Your task to perform on an android device: refresh tabs in the chrome app Image 0: 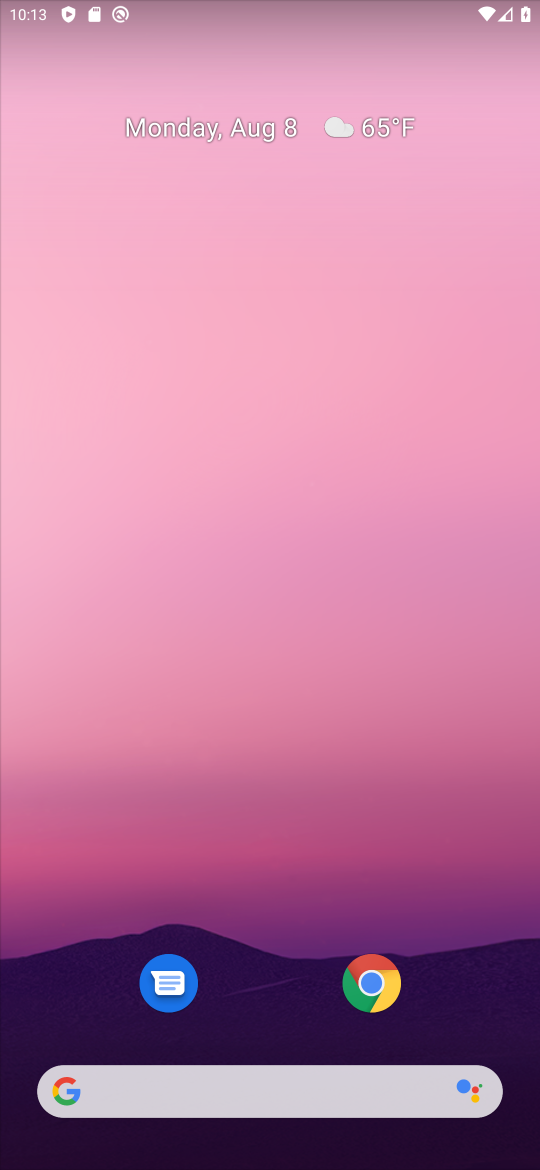
Step 0: press home button
Your task to perform on an android device: refresh tabs in the chrome app Image 1: 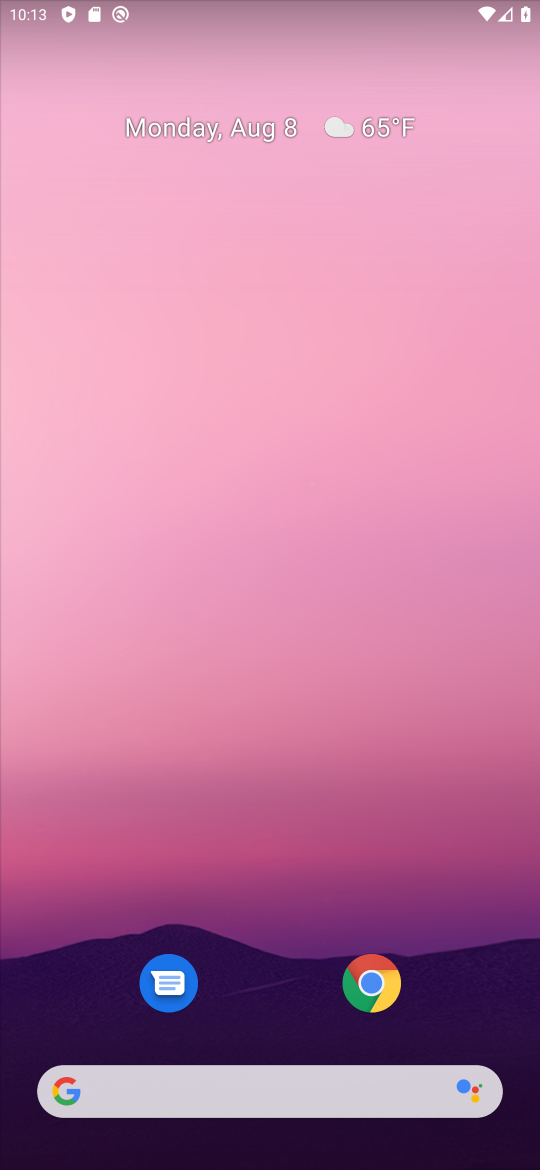
Step 1: click (372, 969)
Your task to perform on an android device: refresh tabs in the chrome app Image 2: 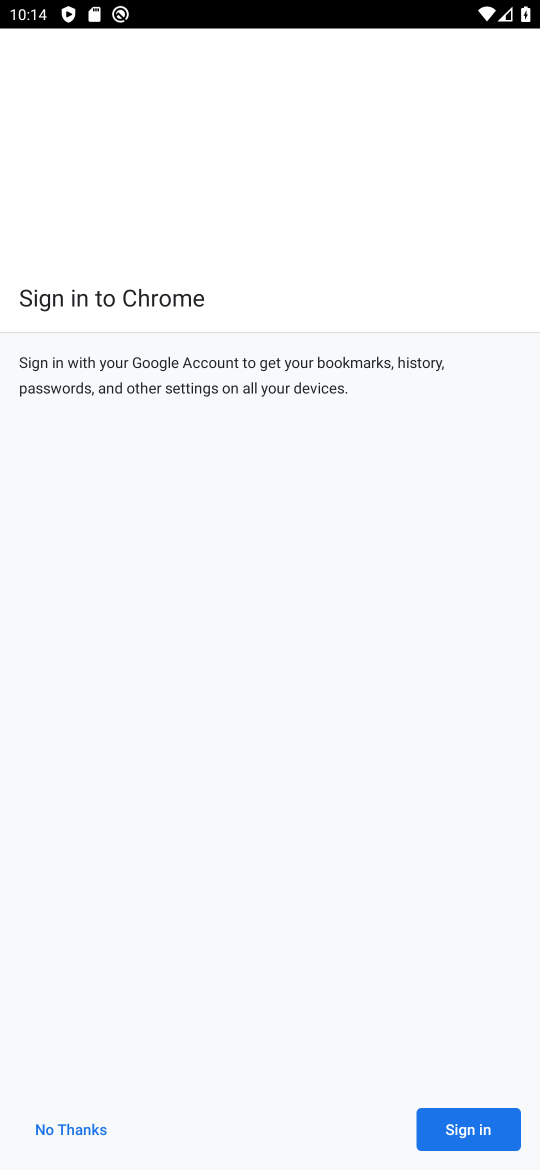
Step 2: task complete